Your task to perform on an android device: Set the phone to "Do not disturb". Image 0: 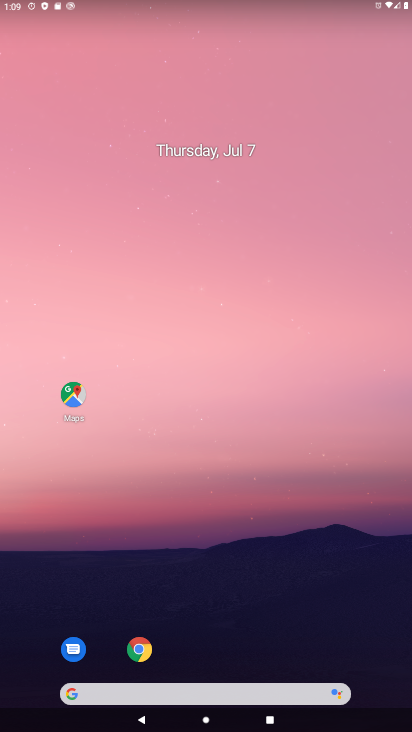
Step 0: drag from (171, 5) to (142, 421)
Your task to perform on an android device: Set the phone to "Do not disturb". Image 1: 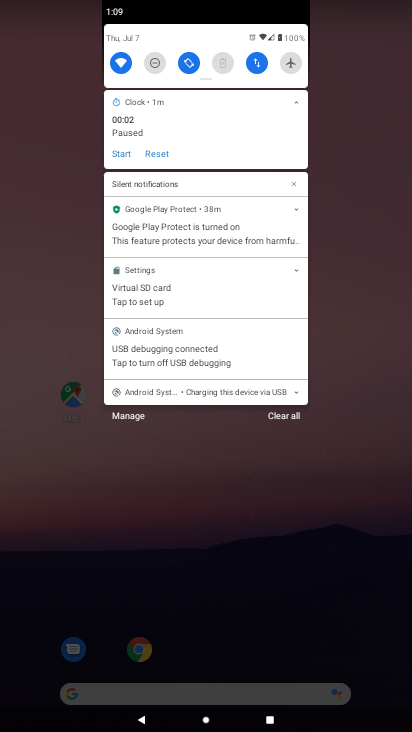
Step 1: click (150, 71)
Your task to perform on an android device: Set the phone to "Do not disturb". Image 2: 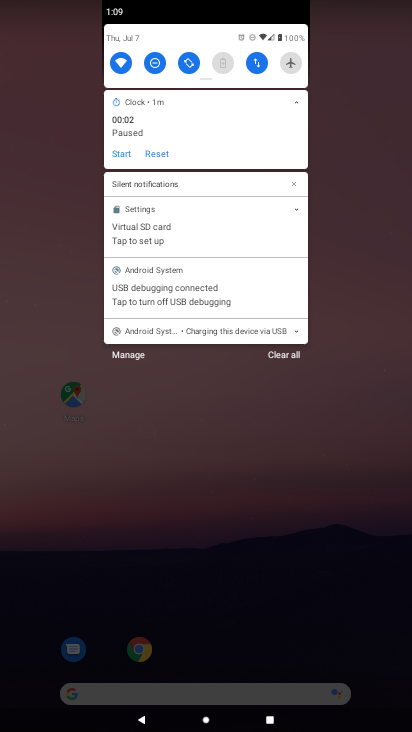
Step 2: task complete